Your task to perform on an android device: Open the calendar app, open the side menu, and click the "Day" option Image 0: 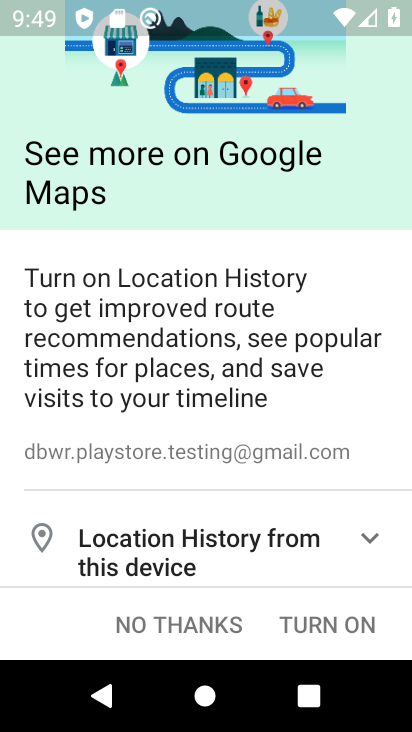
Step 0: press home button
Your task to perform on an android device: Open the calendar app, open the side menu, and click the "Day" option Image 1: 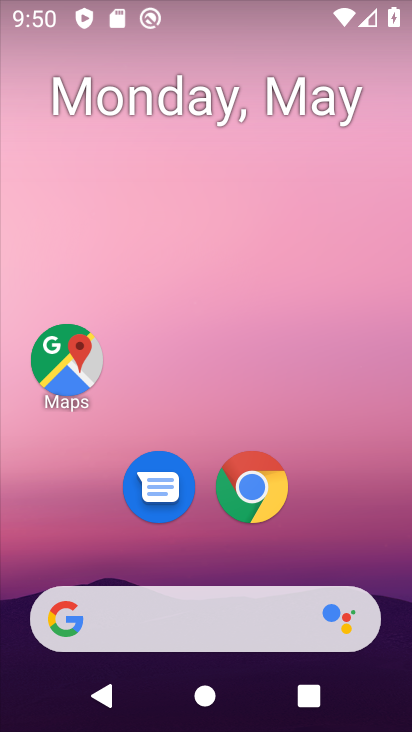
Step 1: drag from (219, 542) to (115, 24)
Your task to perform on an android device: Open the calendar app, open the side menu, and click the "Day" option Image 2: 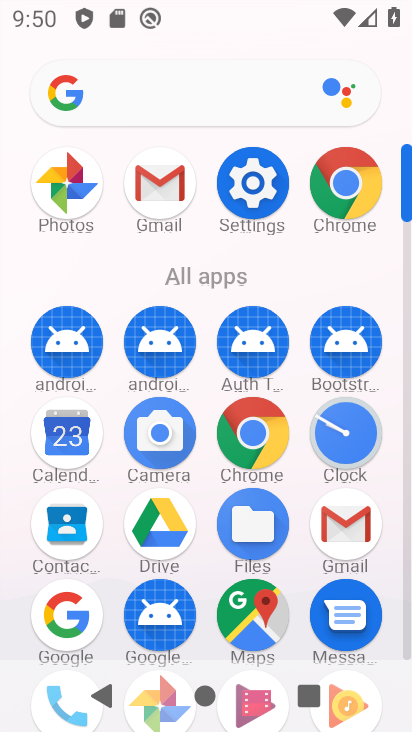
Step 2: click (67, 450)
Your task to perform on an android device: Open the calendar app, open the side menu, and click the "Day" option Image 3: 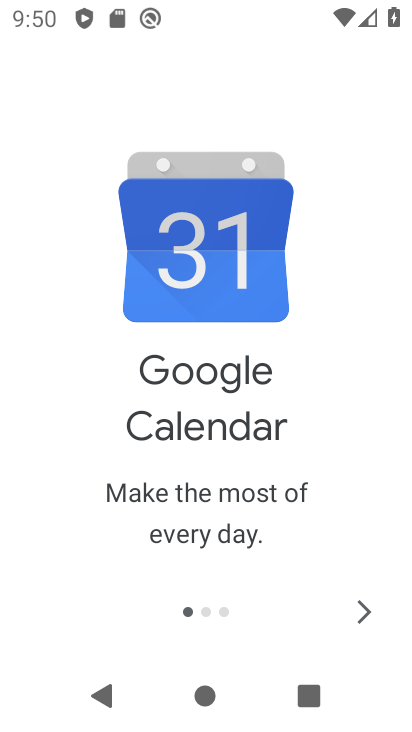
Step 3: click (362, 614)
Your task to perform on an android device: Open the calendar app, open the side menu, and click the "Day" option Image 4: 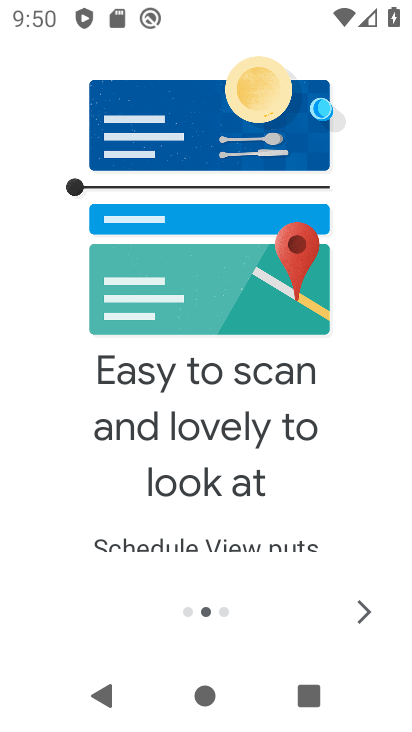
Step 4: click (368, 608)
Your task to perform on an android device: Open the calendar app, open the side menu, and click the "Day" option Image 5: 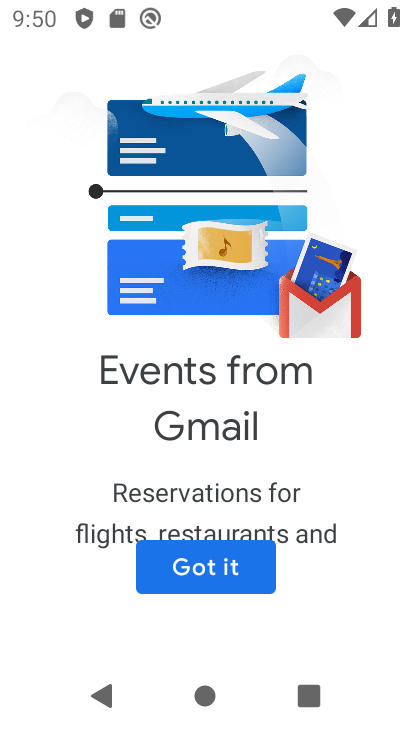
Step 5: click (226, 565)
Your task to perform on an android device: Open the calendar app, open the side menu, and click the "Day" option Image 6: 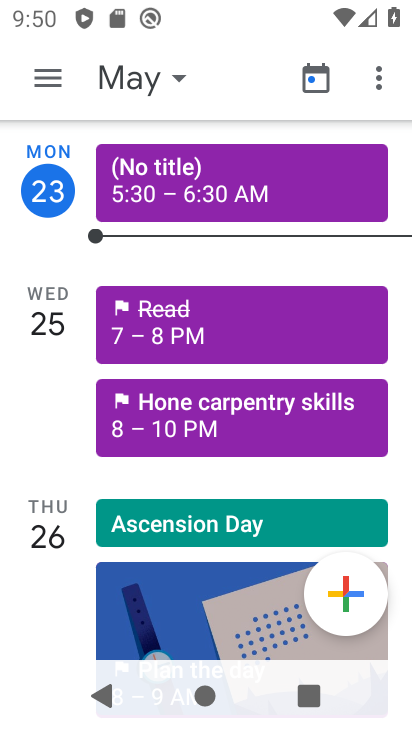
Step 6: click (41, 77)
Your task to perform on an android device: Open the calendar app, open the side menu, and click the "Day" option Image 7: 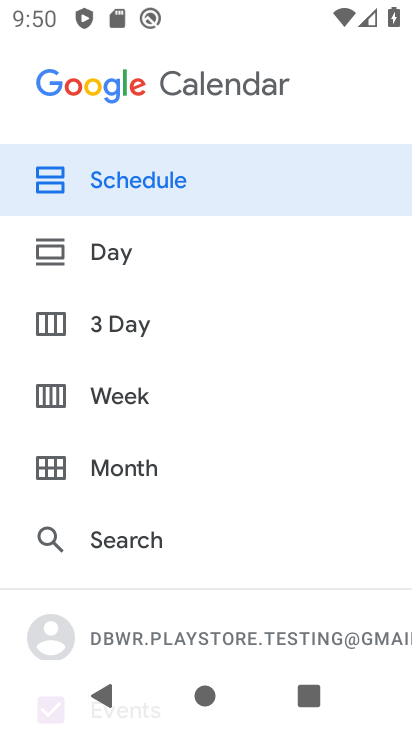
Step 7: click (141, 252)
Your task to perform on an android device: Open the calendar app, open the side menu, and click the "Day" option Image 8: 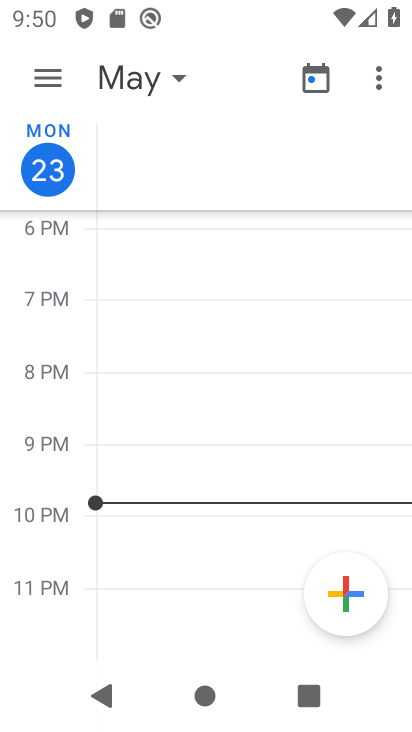
Step 8: task complete